Your task to perform on an android device: Open Wikipedia Image 0: 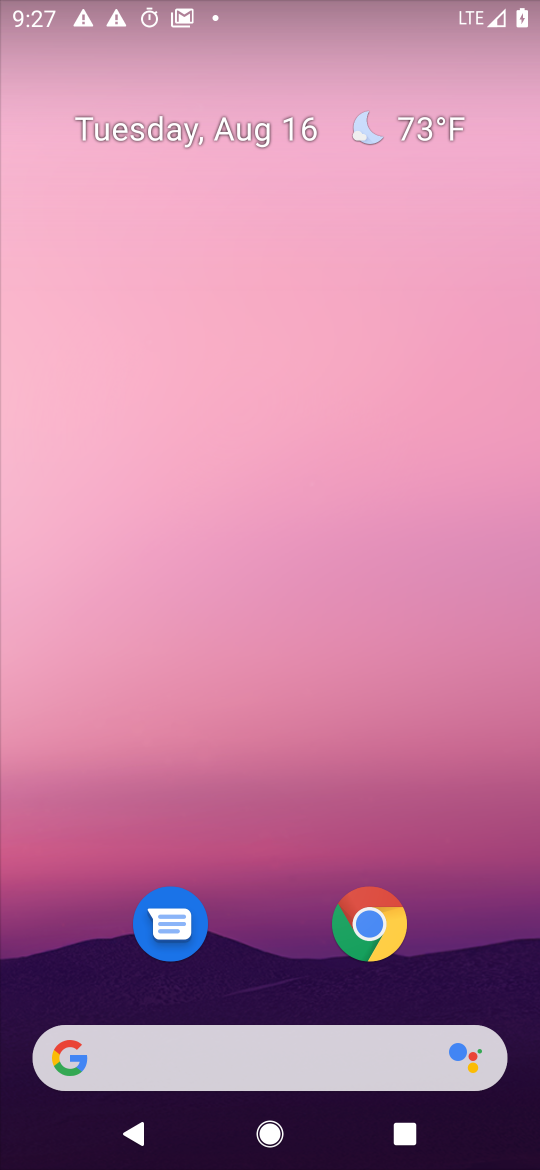
Step 0: click (365, 937)
Your task to perform on an android device: Open Wikipedia Image 1: 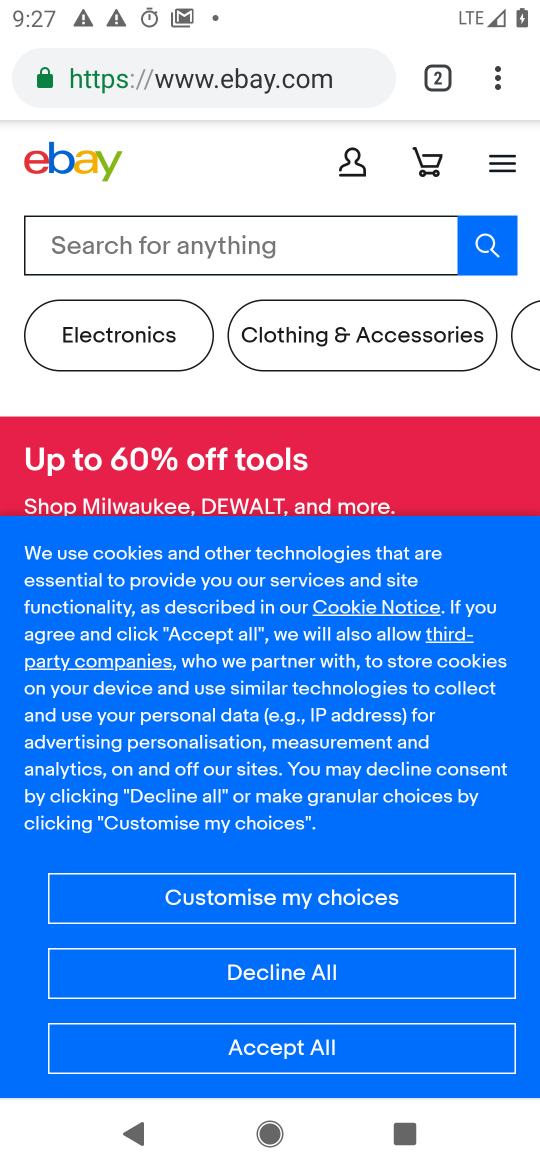
Step 1: click (424, 84)
Your task to perform on an android device: Open Wikipedia Image 2: 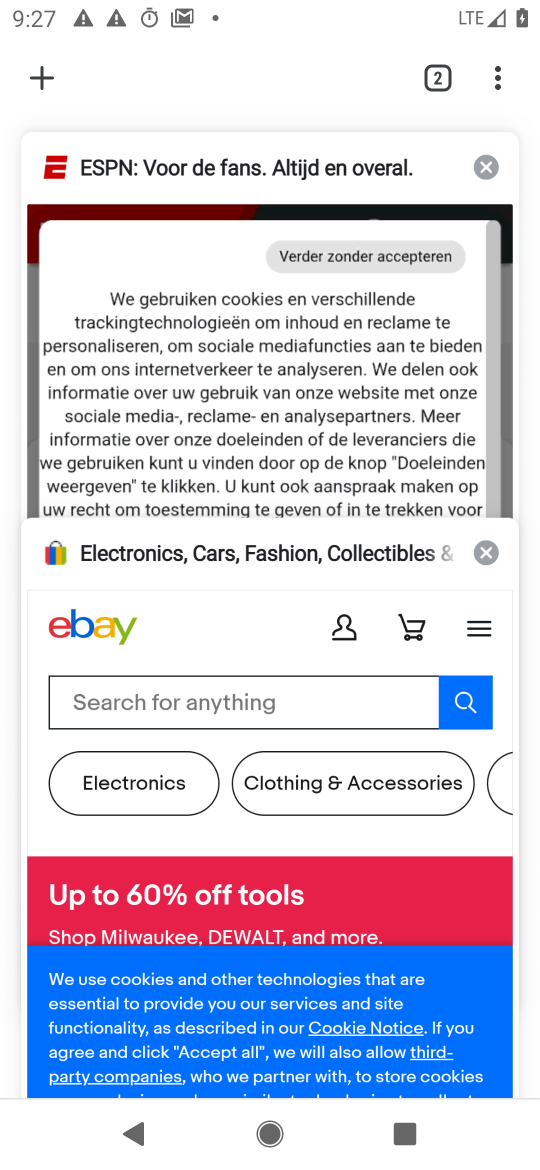
Step 2: click (40, 78)
Your task to perform on an android device: Open Wikipedia Image 3: 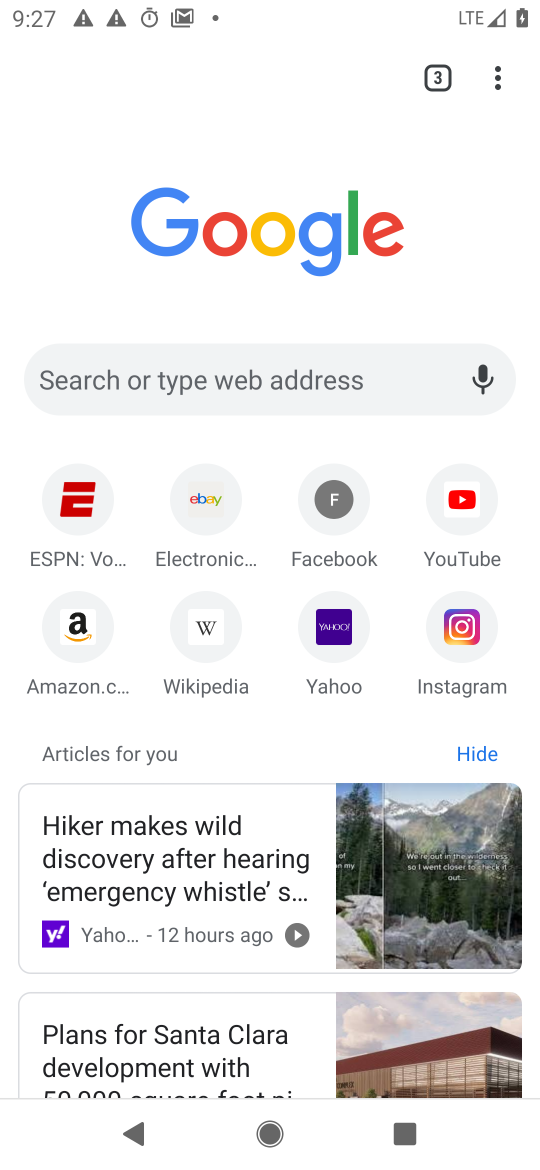
Step 3: click (210, 622)
Your task to perform on an android device: Open Wikipedia Image 4: 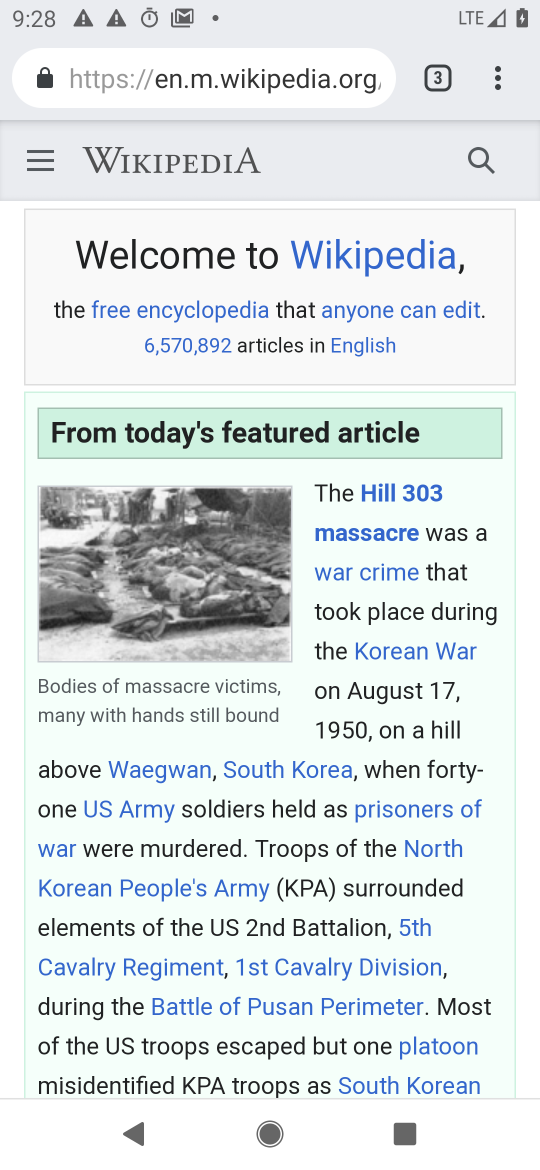
Step 4: task complete